Your task to perform on an android device: turn notification dots on Image 0: 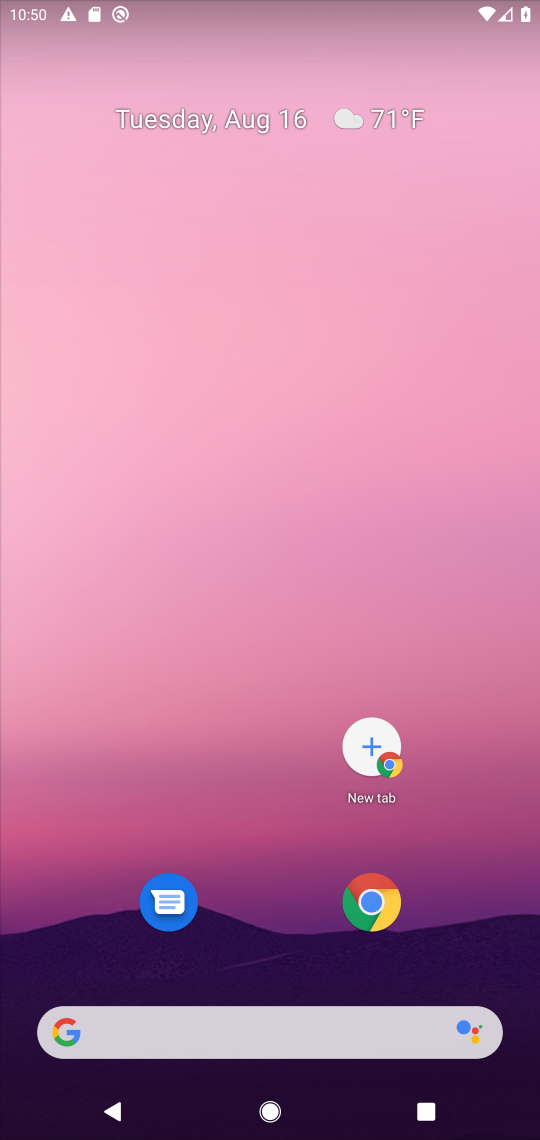
Step 0: drag from (209, 1003) to (205, 190)
Your task to perform on an android device: turn notification dots on Image 1: 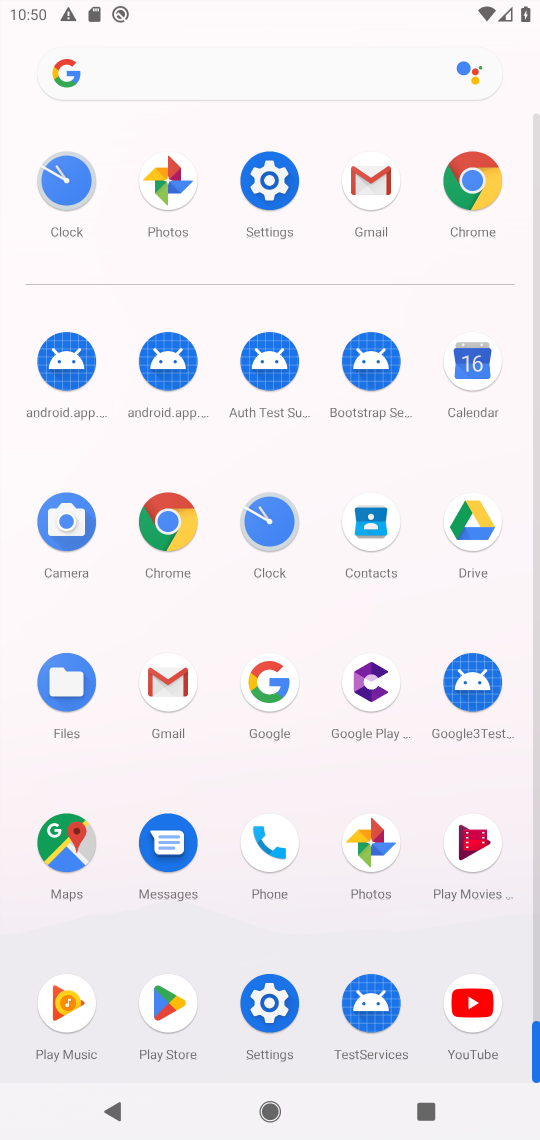
Step 1: click (255, 200)
Your task to perform on an android device: turn notification dots on Image 2: 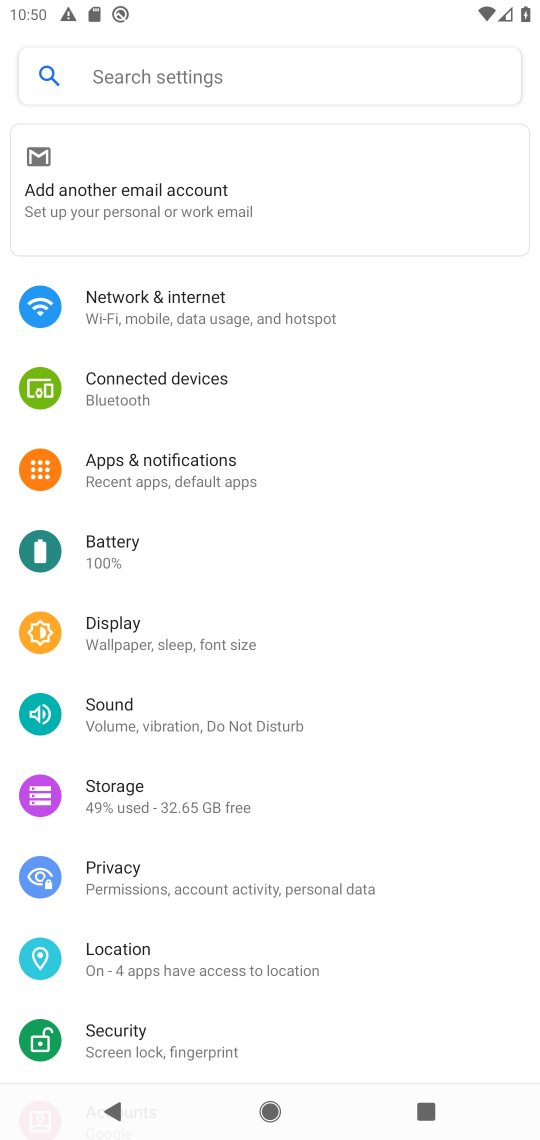
Step 2: click (167, 468)
Your task to perform on an android device: turn notification dots on Image 3: 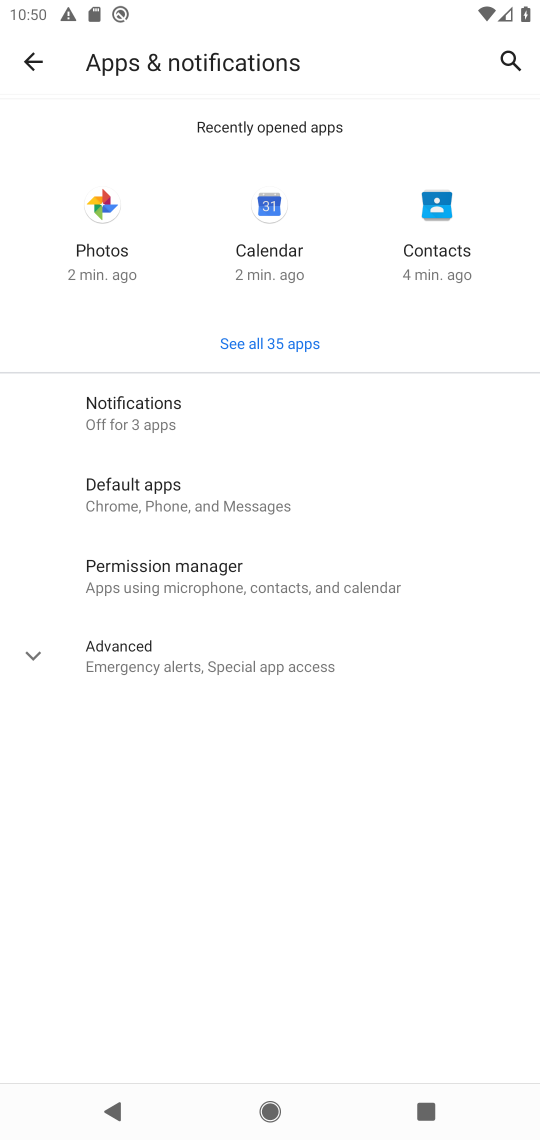
Step 3: click (151, 668)
Your task to perform on an android device: turn notification dots on Image 4: 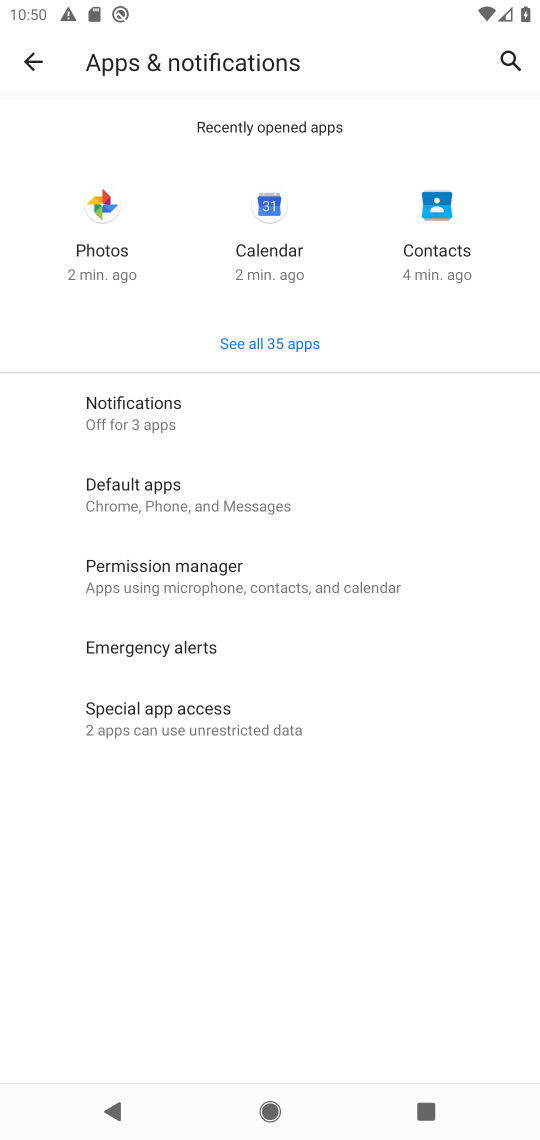
Step 4: click (112, 413)
Your task to perform on an android device: turn notification dots on Image 5: 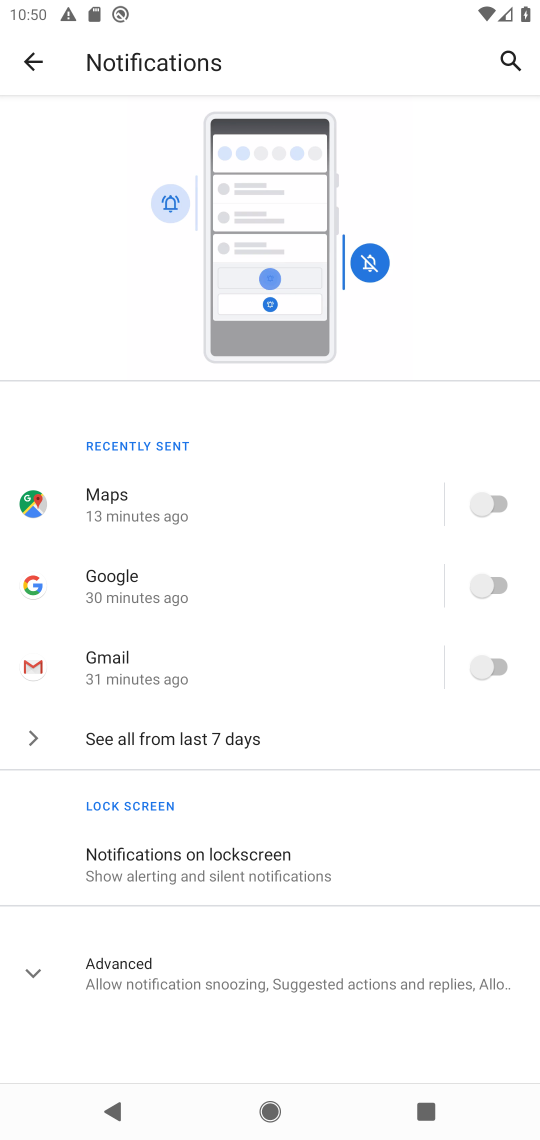
Step 5: click (130, 978)
Your task to perform on an android device: turn notification dots on Image 6: 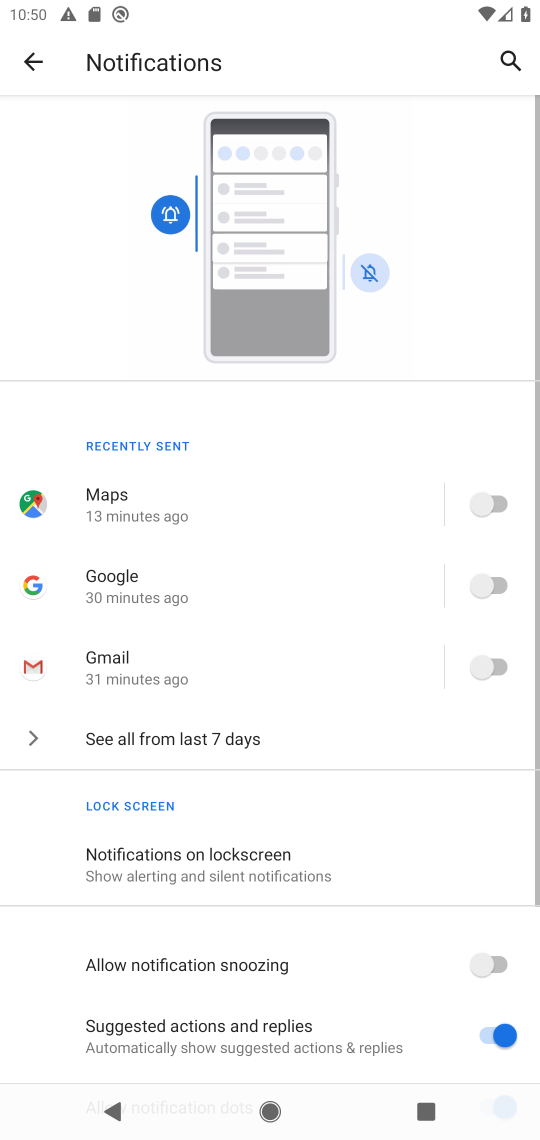
Step 6: task complete